Your task to perform on an android device: move an email to a new category in the gmail app Image 0: 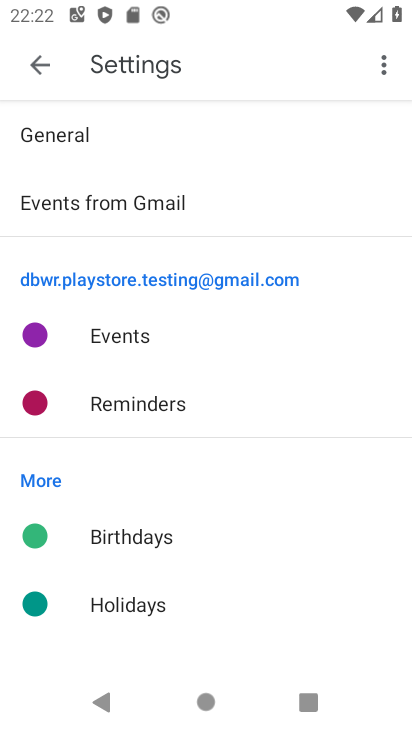
Step 0: press home button
Your task to perform on an android device: move an email to a new category in the gmail app Image 1: 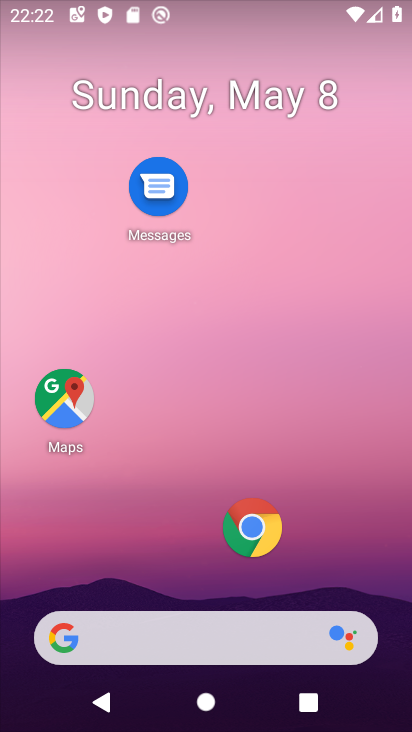
Step 1: drag from (169, 575) to (155, 21)
Your task to perform on an android device: move an email to a new category in the gmail app Image 2: 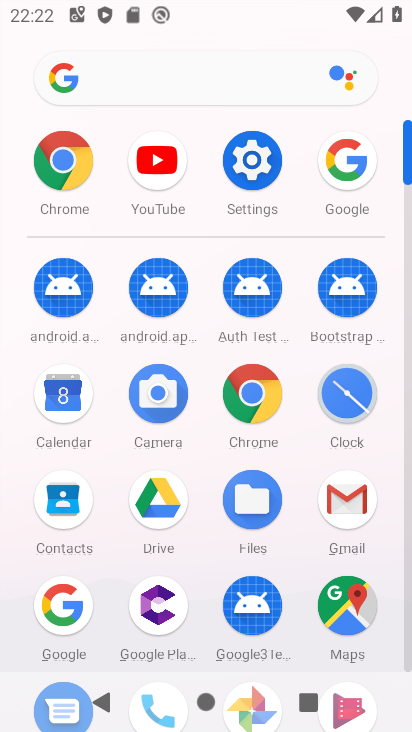
Step 2: click (334, 495)
Your task to perform on an android device: move an email to a new category in the gmail app Image 3: 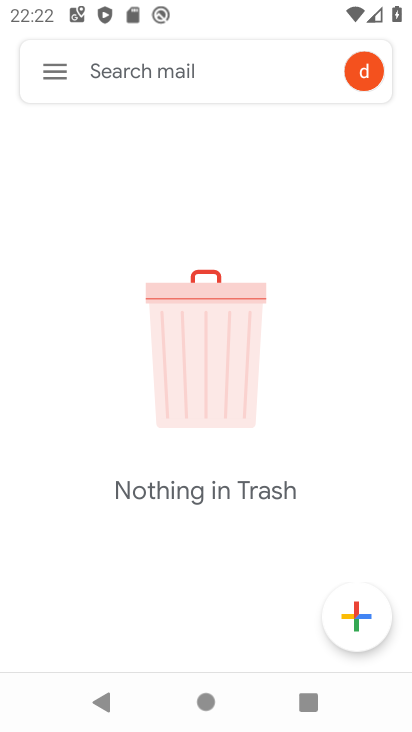
Step 3: click (57, 74)
Your task to perform on an android device: move an email to a new category in the gmail app Image 4: 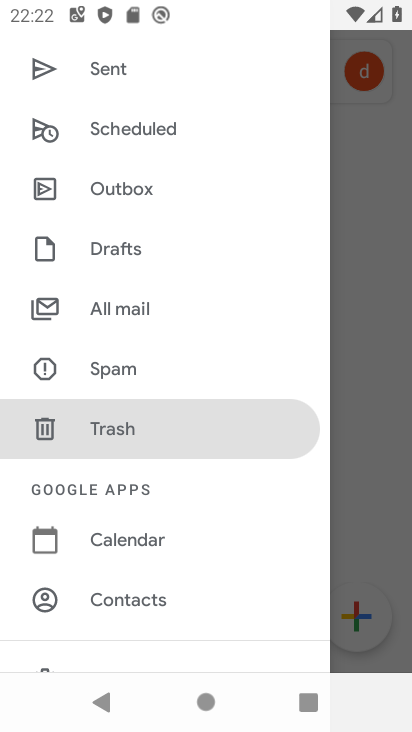
Step 4: click (139, 324)
Your task to perform on an android device: move an email to a new category in the gmail app Image 5: 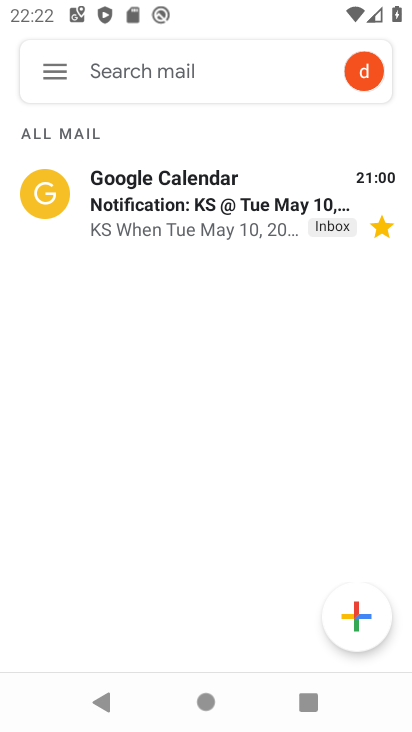
Step 5: click (208, 192)
Your task to perform on an android device: move an email to a new category in the gmail app Image 6: 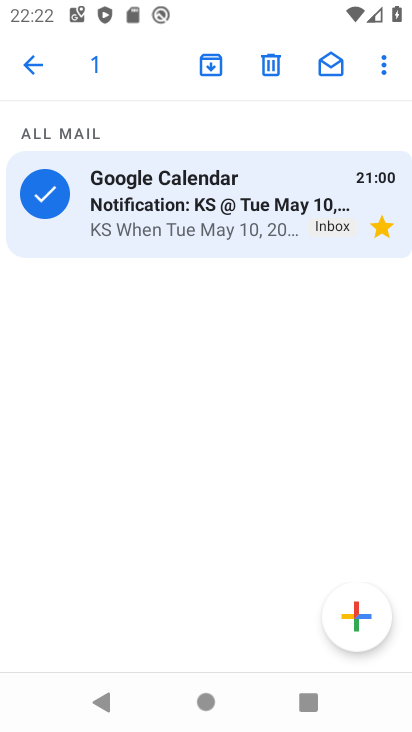
Step 6: click (378, 68)
Your task to perform on an android device: move an email to a new category in the gmail app Image 7: 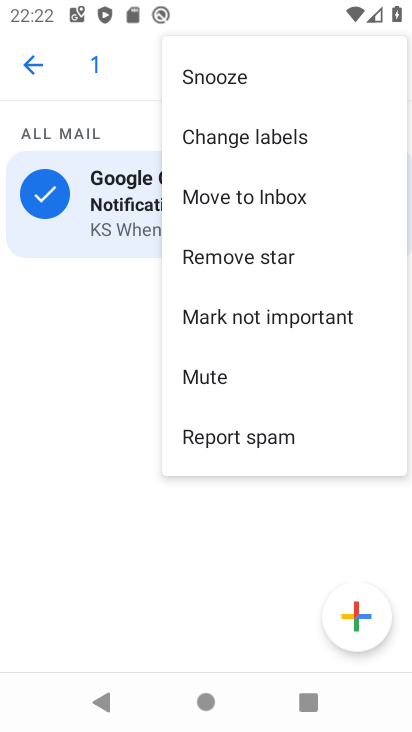
Step 7: click (240, 199)
Your task to perform on an android device: move an email to a new category in the gmail app Image 8: 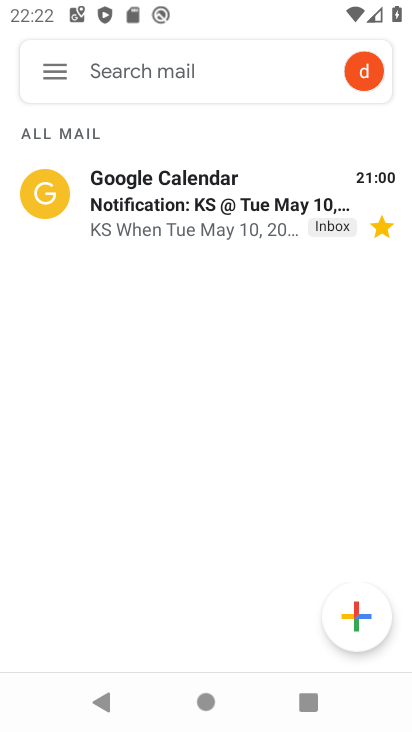
Step 8: task complete